Your task to perform on an android device: change notification settings in the gmail app Image 0: 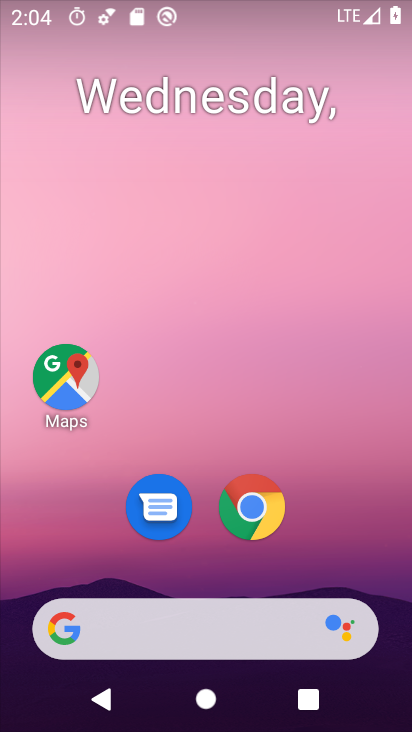
Step 0: drag from (278, 560) to (275, 45)
Your task to perform on an android device: change notification settings in the gmail app Image 1: 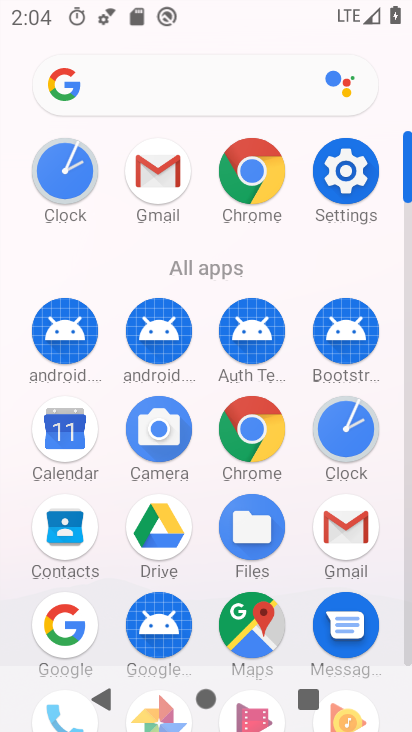
Step 1: click (330, 512)
Your task to perform on an android device: change notification settings in the gmail app Image 2: 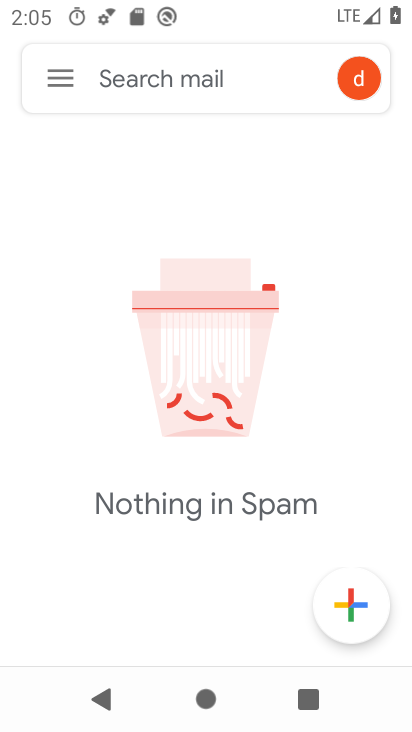
Step 2: click (46, 69)
Your task to perform on an android device: change notification settings in the gmail app Image 3: 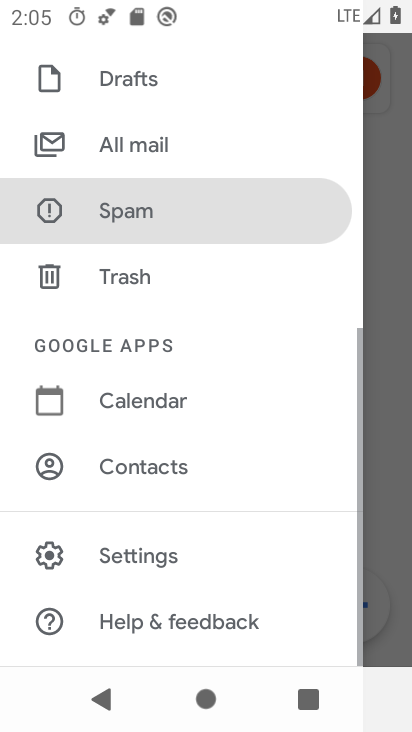
Step 3: click (170, 561)
Your task to perform on an android device: change notification settings in the gmail app Image 4: 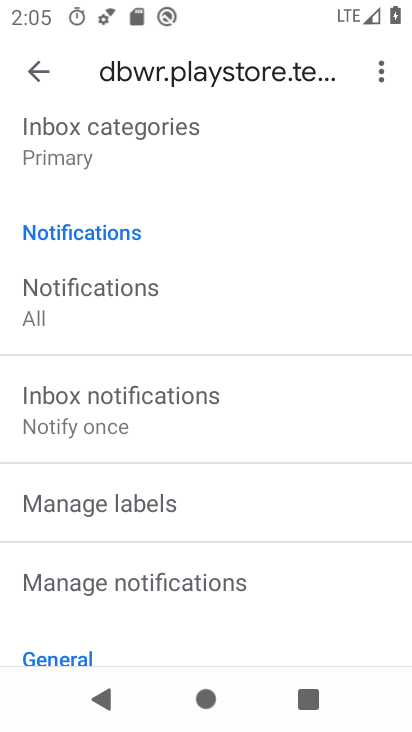
Step 4: click (109, 598)
Your task to perform on an android device: change notification settings in the gmail app Image 5: 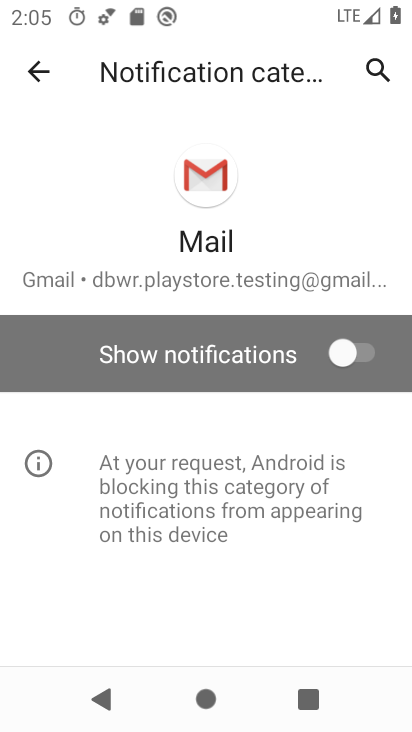
Step 5: click (369, 361)
Your task to perform on an android device: change notification settings in the gmail app Image 6: 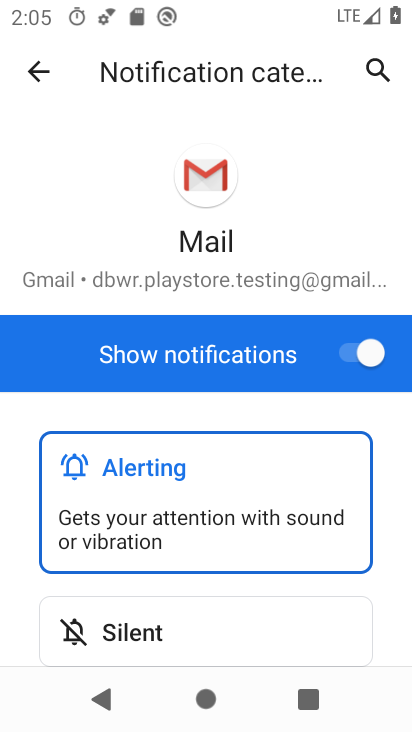
Step 6: task complete